Your task to perform on an android device: change alarm snooze length Image 0: 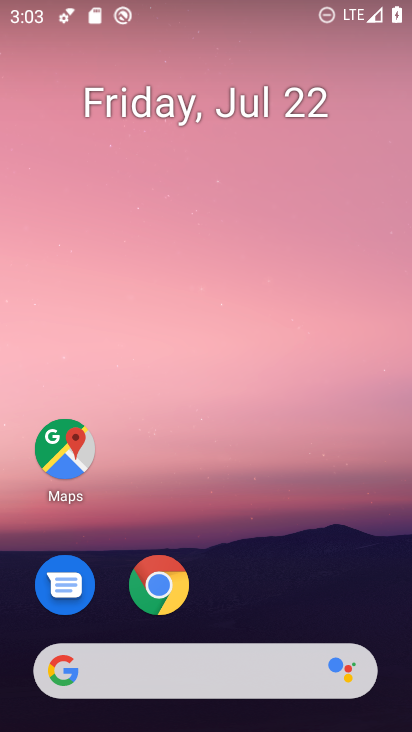
Step 0: drag from (270, 587) to (295, 42)
Your task to perform on an android device: change alarm snooze length Image 1: 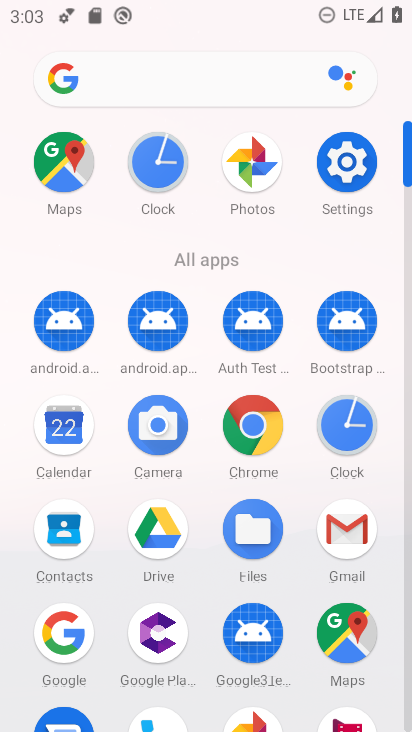
Step 1: click (350, 408)
Your task to perform on an android device: change alarm snooze length Image 2: 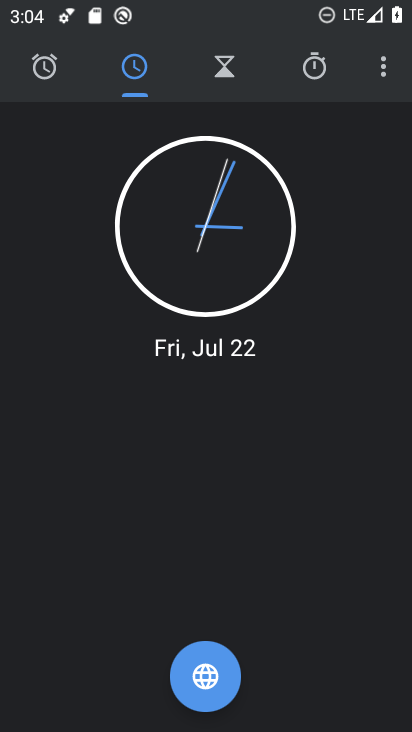
Step 2: click (381, 70)
Your task to perform on an android device: change alarm snooze length Image 3: 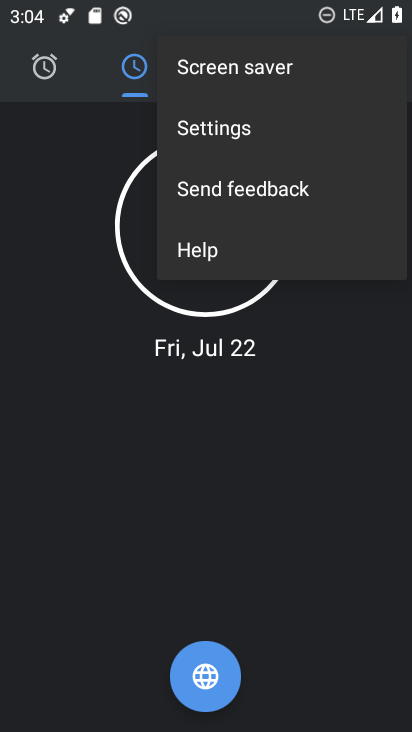
Step 3: click (255, 129)
Your task to perform on an android device: change alarm snooze length Image 4: 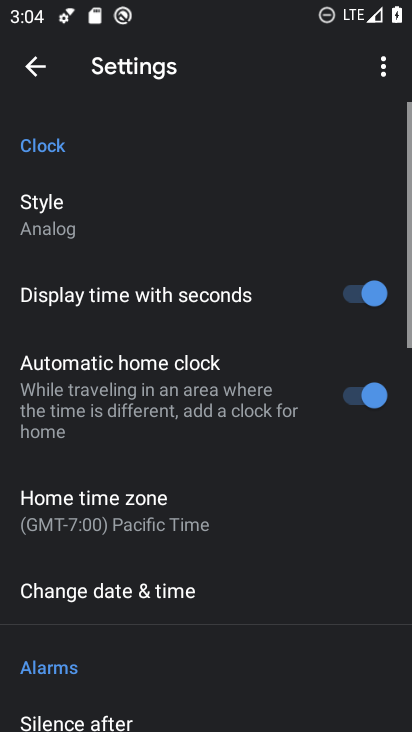
Step 4: drag from (239, 555) to (294, 105)
Your task to perform on an android device: change alarm snooze length Image 5: 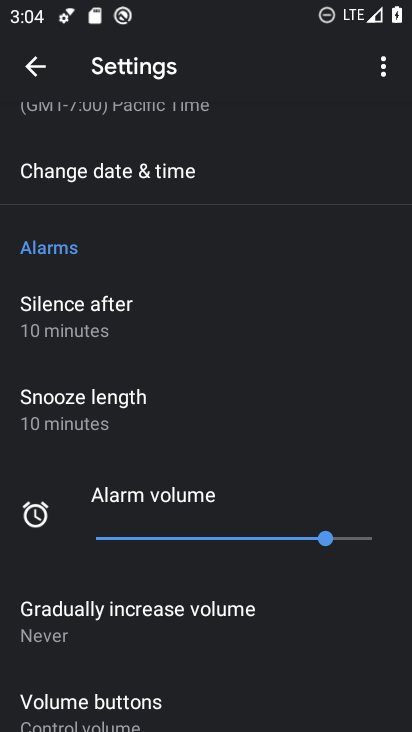
Step 5: click (124, 396)
Your task to perform on an android device: change alarm snooze length Image 6: 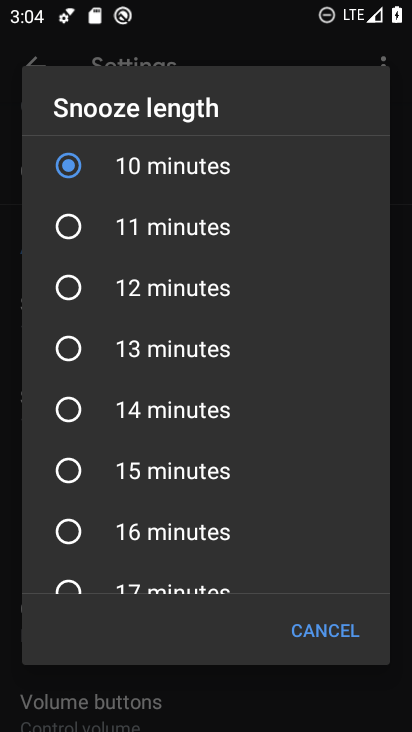
Step 6: click (74, 289)
Your task to perform on an android device: change alarm snooze length Image 7: 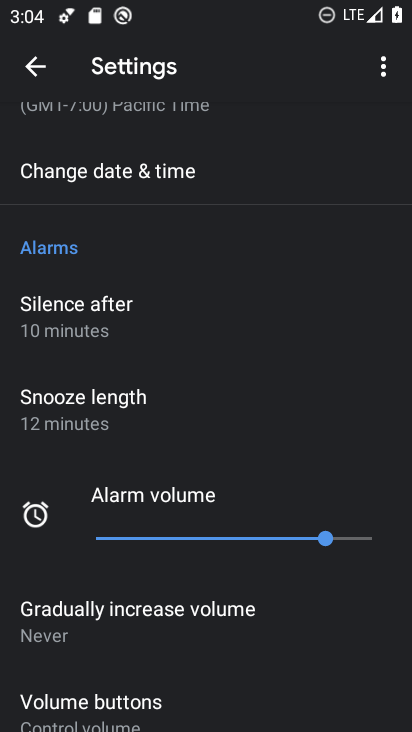
Step 7: task complete